Your task to perform on an android device: Play the last video I watched on Youtube Image 0: 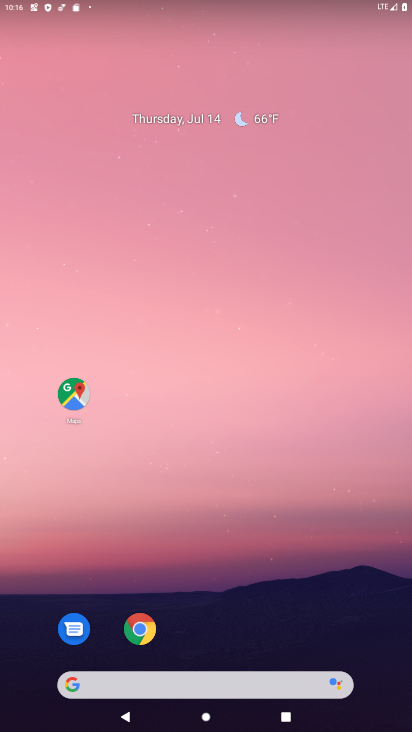
Step 0: press home button
Your task to perform on an android device: Play the last video I watched on Youtube Image 1: 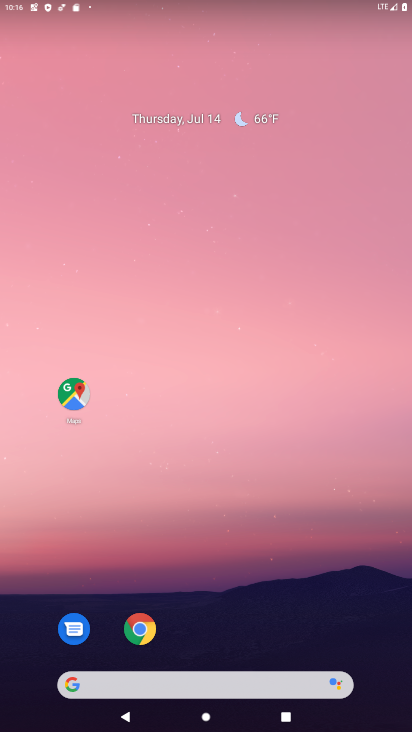
Step 1: drag from (312, 573) to (294, 77)
Your task to perform on an android device: Play the last video I watched on Youtube Image 2: 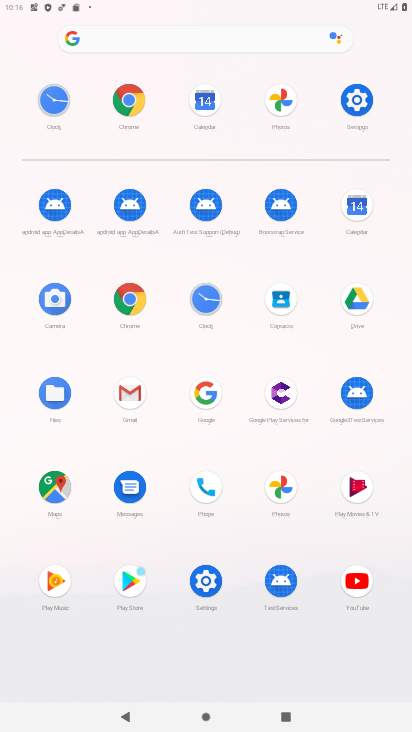
Step 2: click (366, 577)
Your task to perform on an android device: Play the last video I watched on Youtube Image 3: 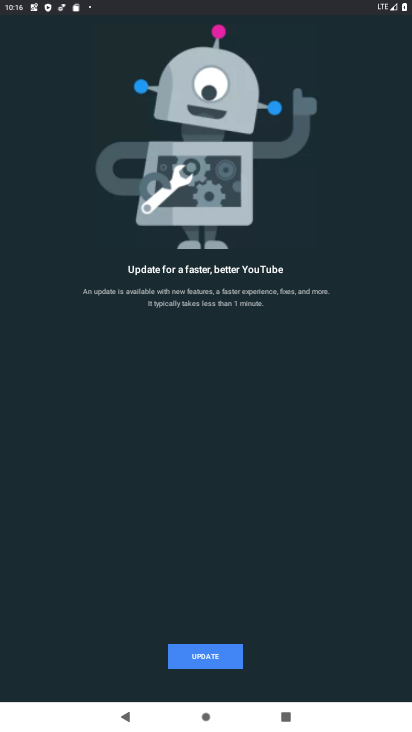
Step 3: click (207, 656)
Your task to perform on an android device: Play the last video I watched on Youtube Image 4: 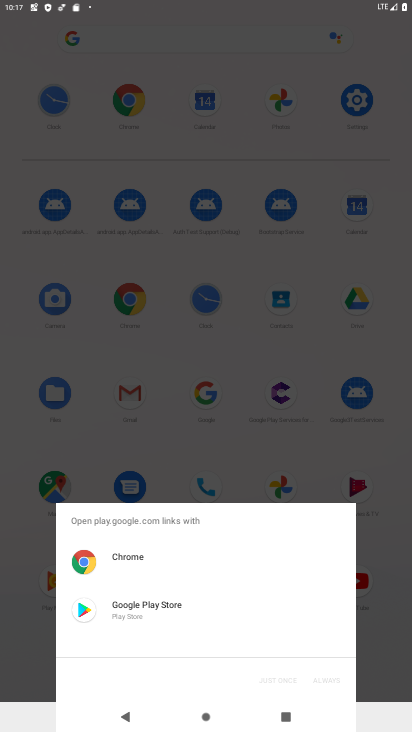
Step 4: click (107, 607)
Your task to perform on an android device: Play the last video I watched on Youtube Image 5: 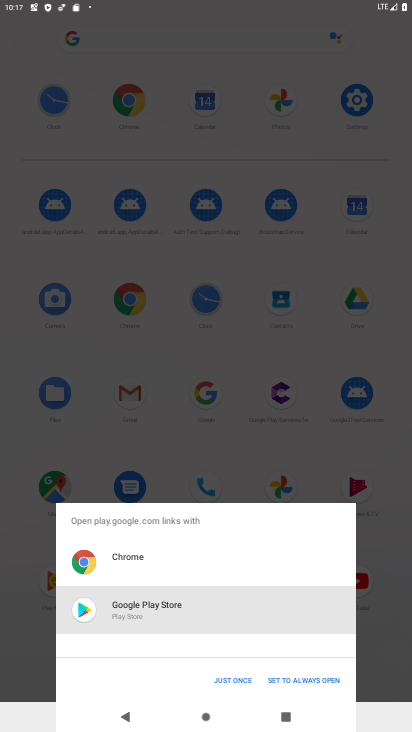
Step 5: click (242, 676)
Your task to perform on an android device: Play the last video I watched on Youtube Image 6: 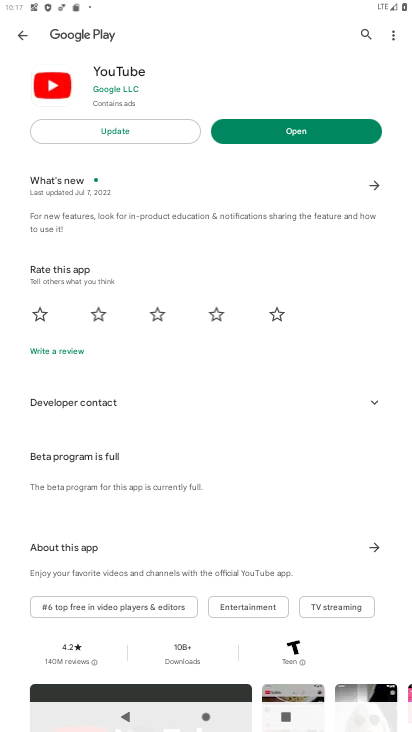
Step 6: click (134, 134)
Your task to perform on an android device: Play the last video I watched on Youtube Image 7: 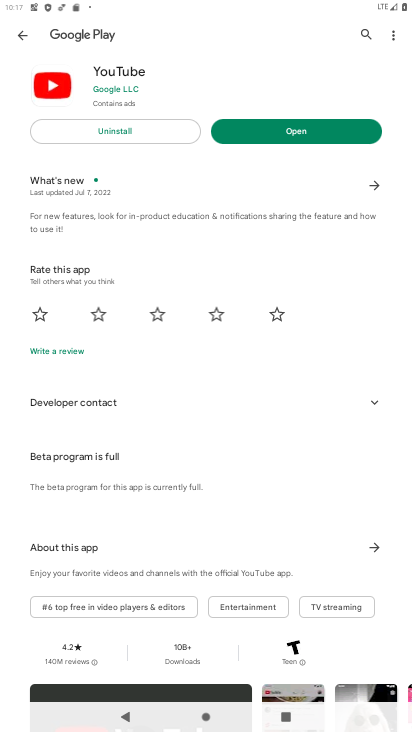
Step 7: click (330, 122)
Your task to perform on an android device: Play the last video I watched on Youtube Image 8: 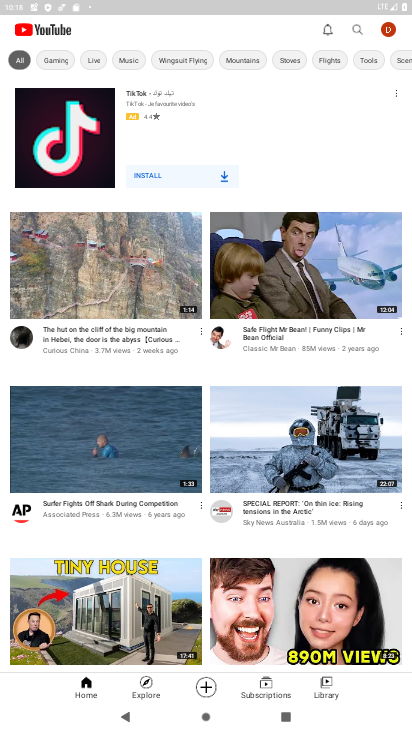
Step 8: click (326, 678)
Your task to perform on an android device: Play the last video I watched on Youtube Image 9: 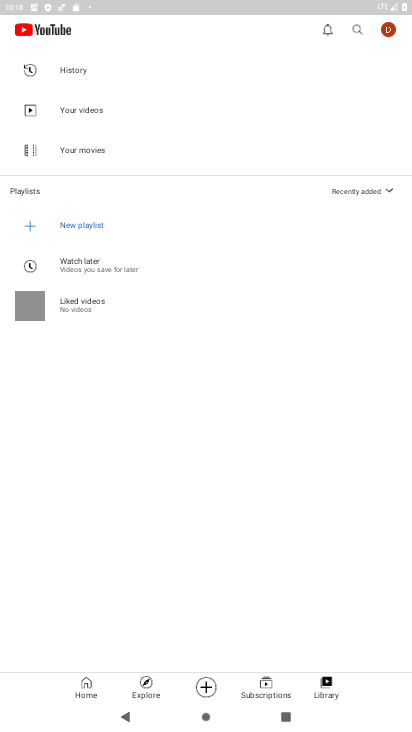
Step 9: click (84, 65)
Your task to perform on an android device: Play the last video I watched on Youtube Image 10: 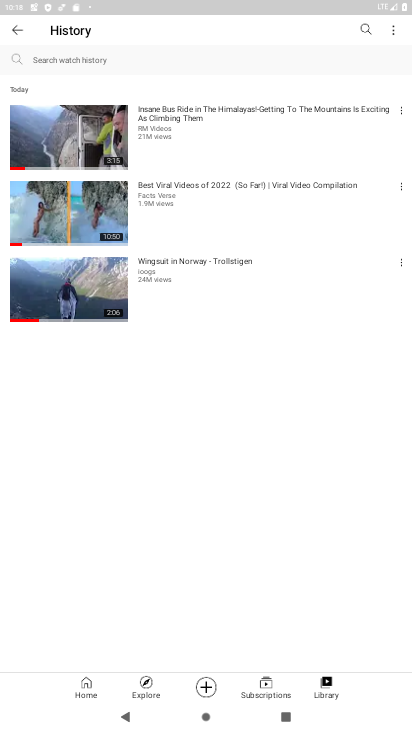
Step 10: click (82, 117)
Your task to perform on an android device: Play the last video I watched on Youtube Image 11: 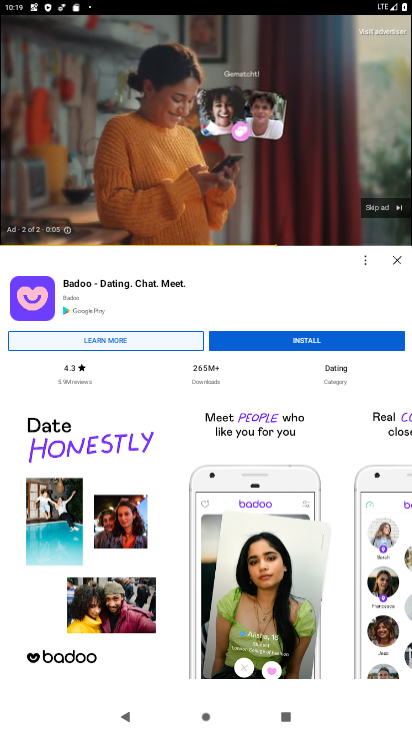
Step 11: task complete